Your task to perform on an android device: Go to sound settings Image 0: 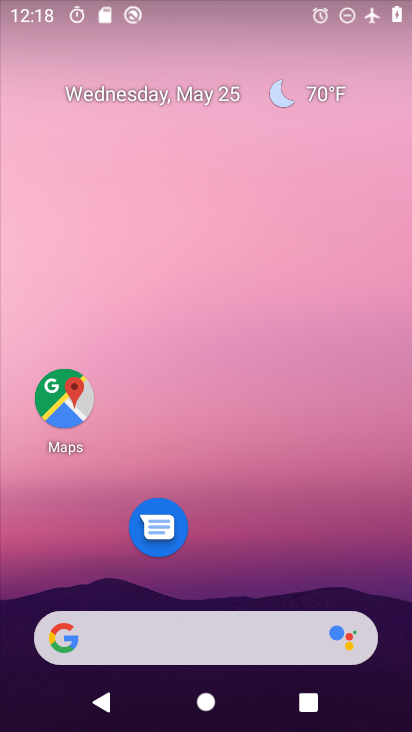
Step 0: drag from (266, 547) to (292, 92)
Your task to perform on an android device: Go to sound settings Image 1: 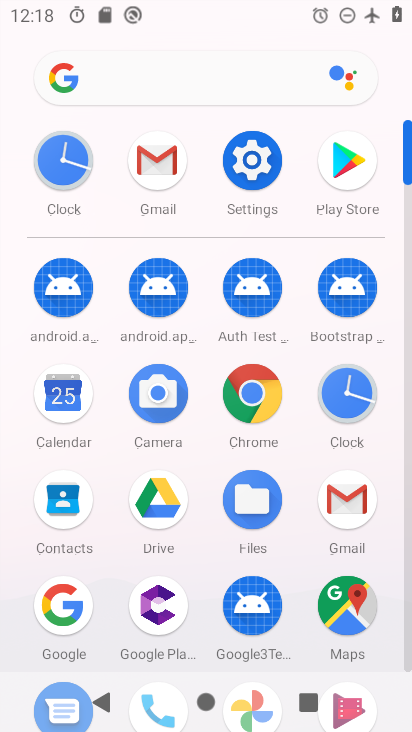
Step 1: click (250, 158)
Your task to perform on an android device: Go to sound settings Image 2: 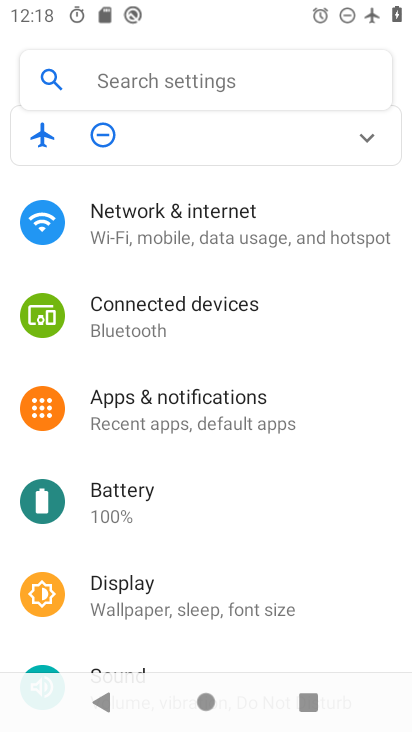
Step 2: drag from (263, 583) to (251, 239)
Your task to perform on an android device: Go to sound settings Image 3: 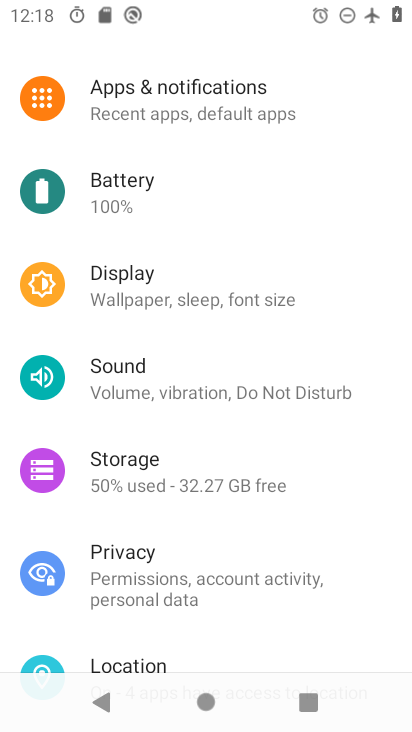
Step 3: click (156, 377)
Your task to perform on an android device: Go to sound settings Image 4: 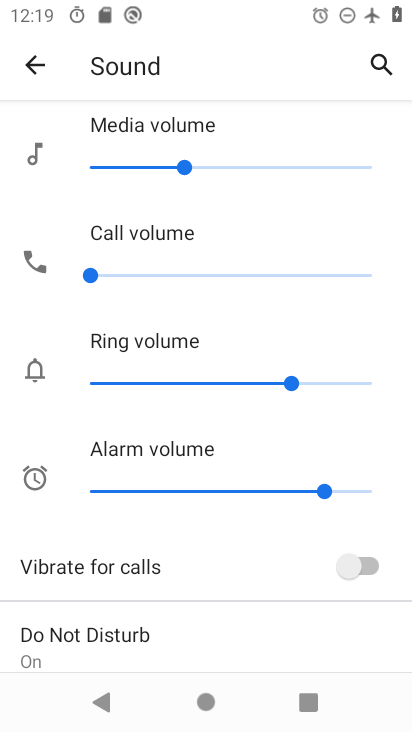
Step 4: task complete